Your task to perform on an android device: Open the map Image 0: 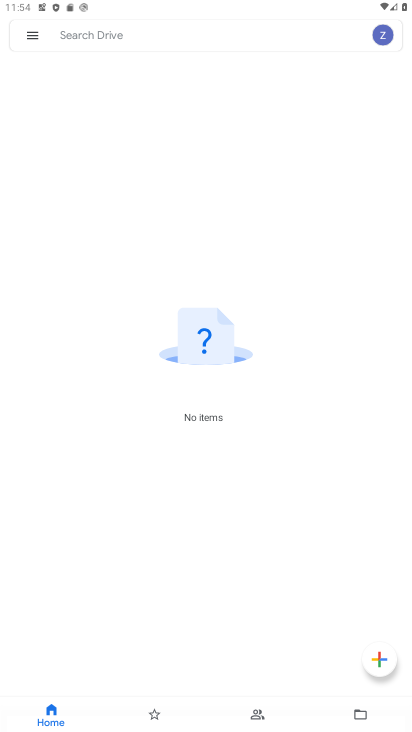
Step 0: press home button
Your task to perform on an android device: Open the map Image 1: 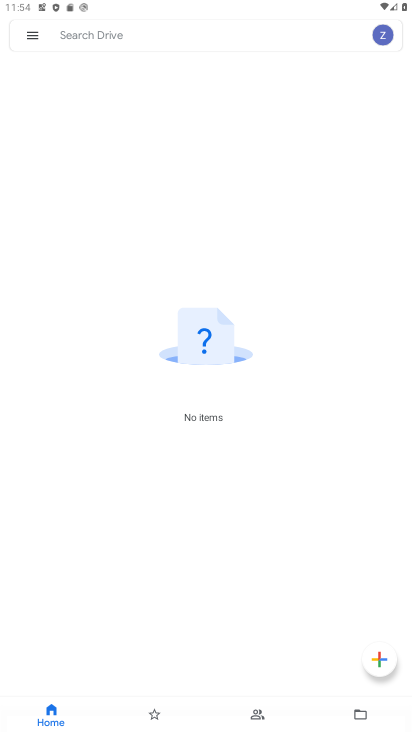
Step 1: press home button
Your task to perform on an android device: Open the map Image 2: 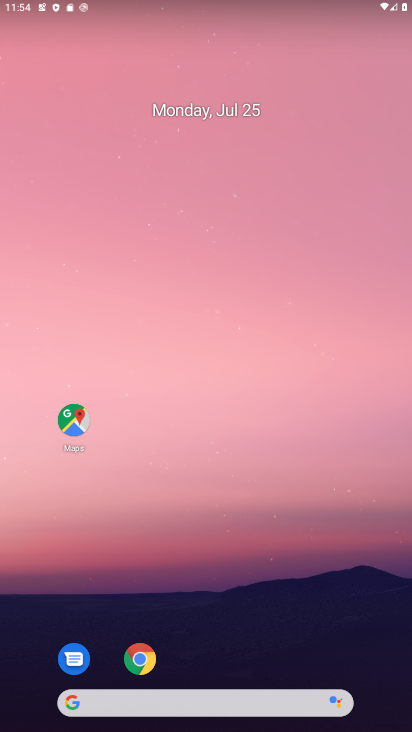
Step 2: drag from (170, 620) to (184, 169)
Your task to perform on an android device: Open the map Image 3: 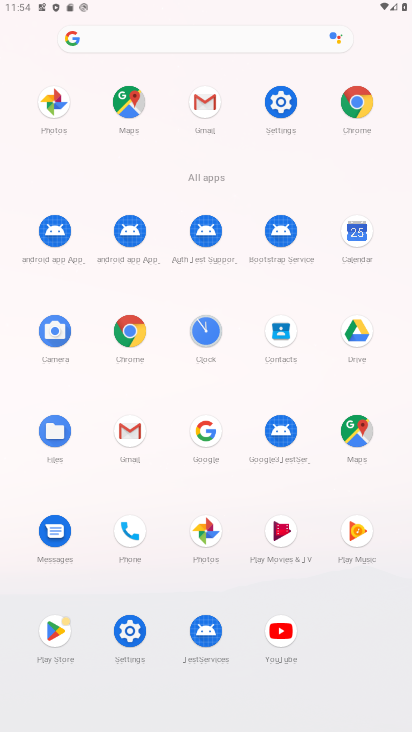
Step 3: click (351, 425)
Your task to perform on an android device: Open the map Image 4: 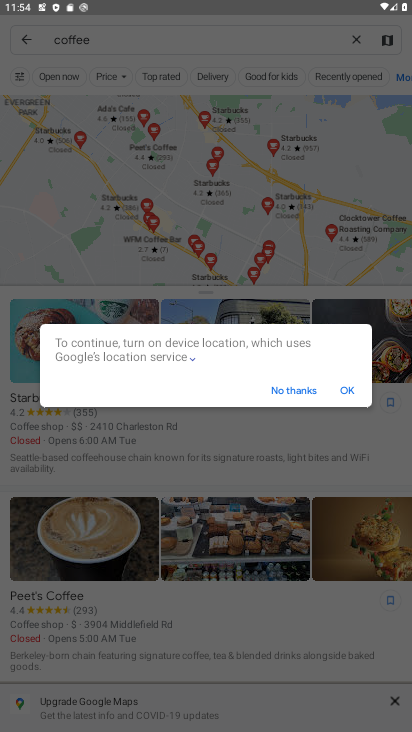
Step 4: click (345, 388)
Your task to perform on an android device: Open the map Image 5: 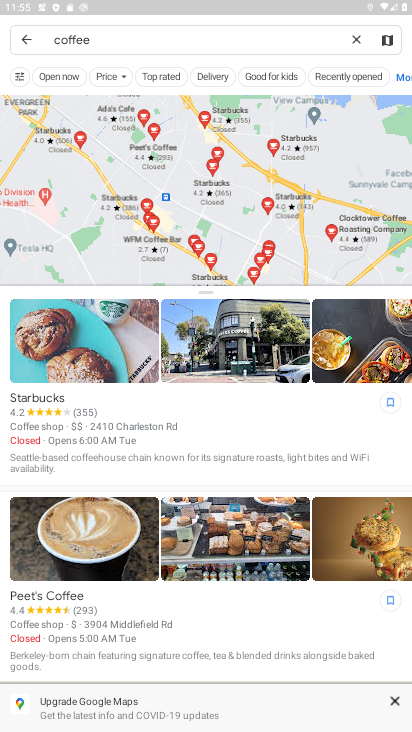
Step 5: task complete